Your task to perform on an android device: open chrome privacy settings Image 0: 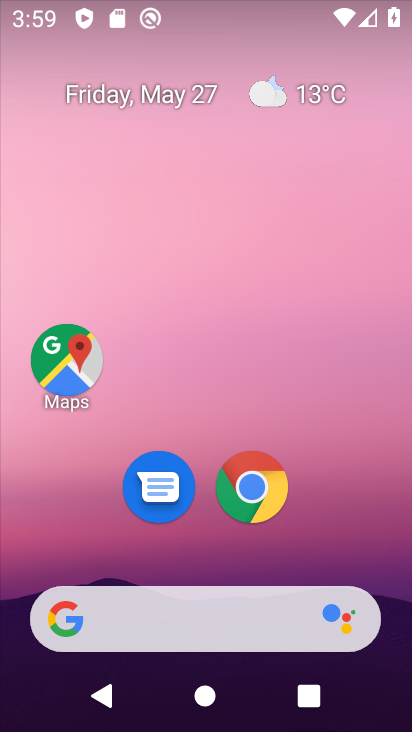
Step 0: click (259, 494)
Your task to perform on an android device: open chrome privacy settings Image 1: 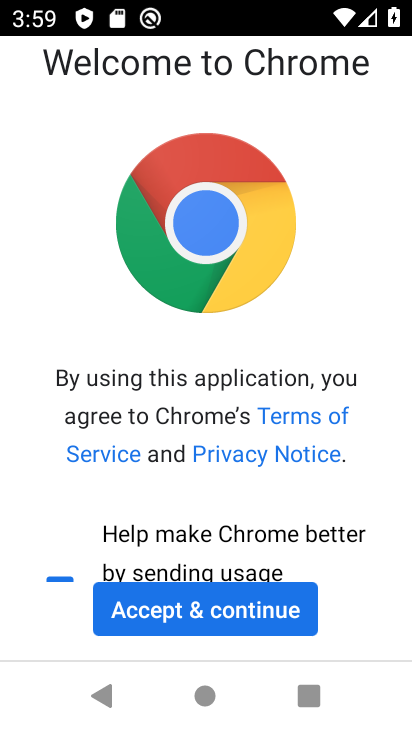
Step 1: click (251, 643)
Your task to perform on an android device: open chrome privacy settings Image 2: 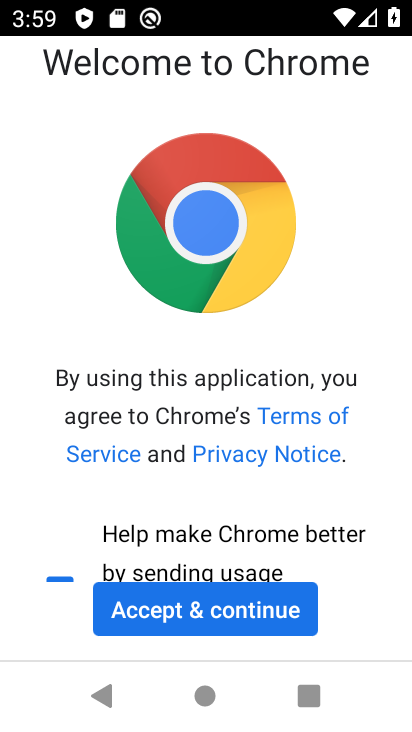
Step 2: click (230, 613)
Your task to perform on an android device: open chrome privacy settings Image 3: 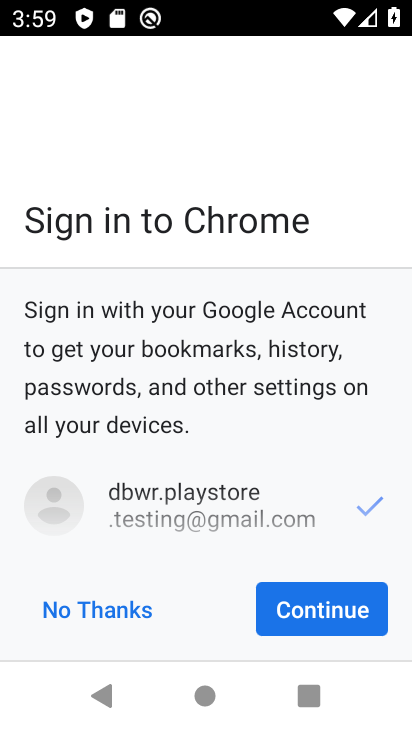
Step 3: click (302, 618)
Your task to perform on an android device: open chrome privacy settings Image 4: 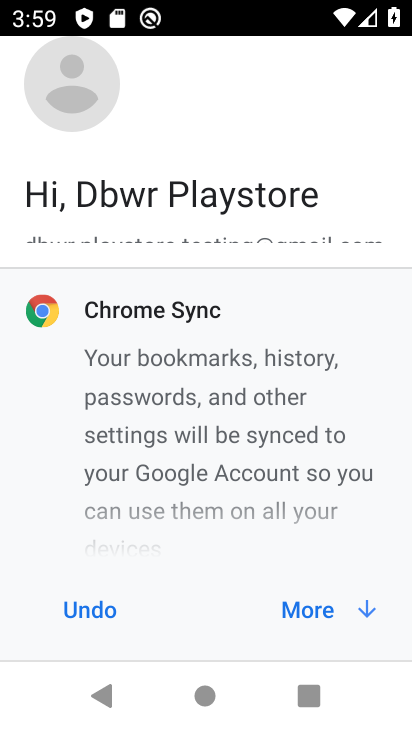
Step 4: click (302, 618)
Your task to perform on an android device: open chrome privacy settings Image 5: 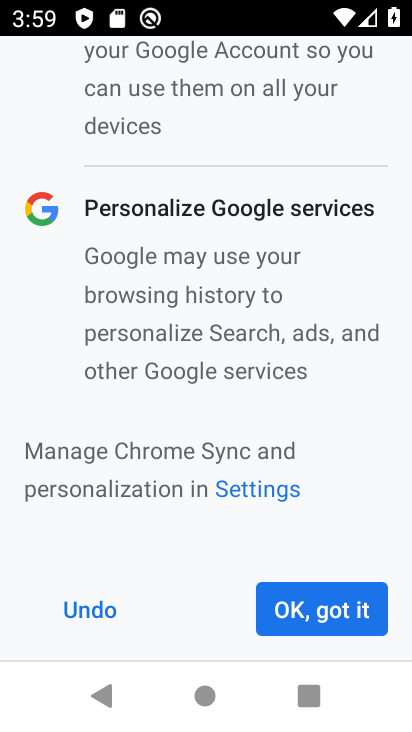
Step 5: click (302, 618)
Your task to perform on an android device: open chrome privacy settings Image 6: 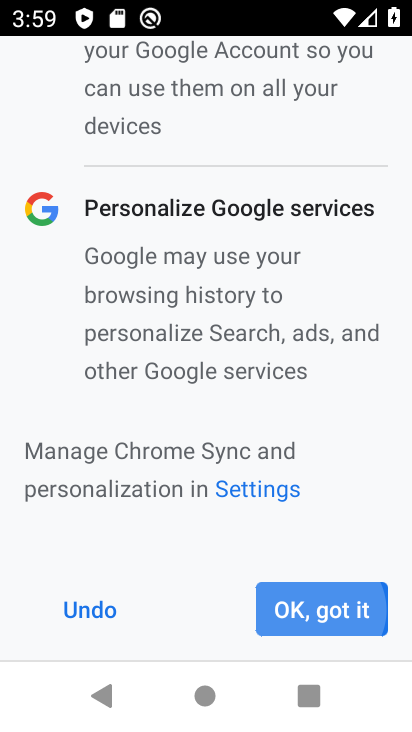
Step 6: click (302, 618)
Your task to perform on an android device: open chrome privacy settings Image 7: 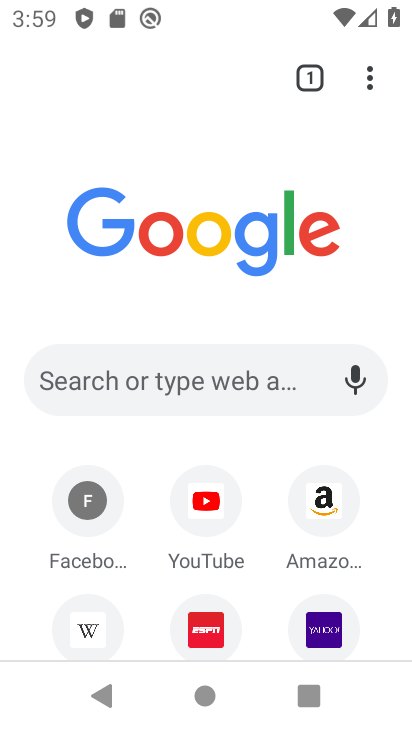
Step 7: click (369, 87)
Your task to perform on an android device: open chrome privacy settings Image 8: 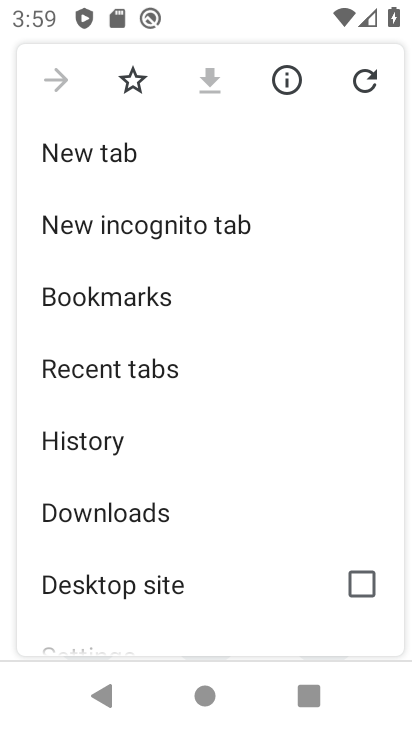
Step 8: drag from (230, 476) to (223, 156)
Your task to perform on an android device: open chrome privacy settings Image 9: 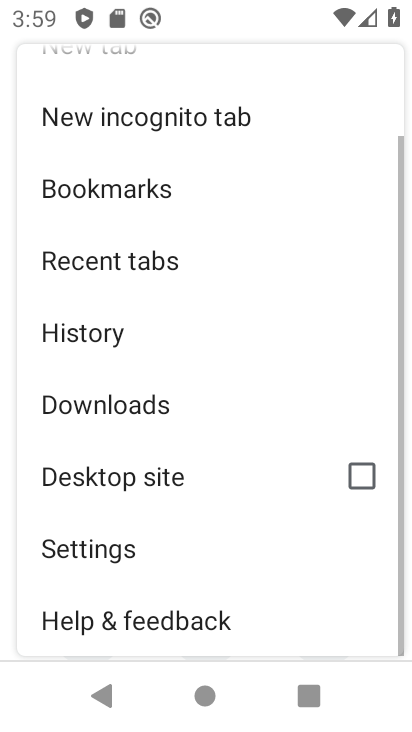
Step 9: click (79, 555)
Your task to perform on an android device: open chrome privacy settings Image 10: 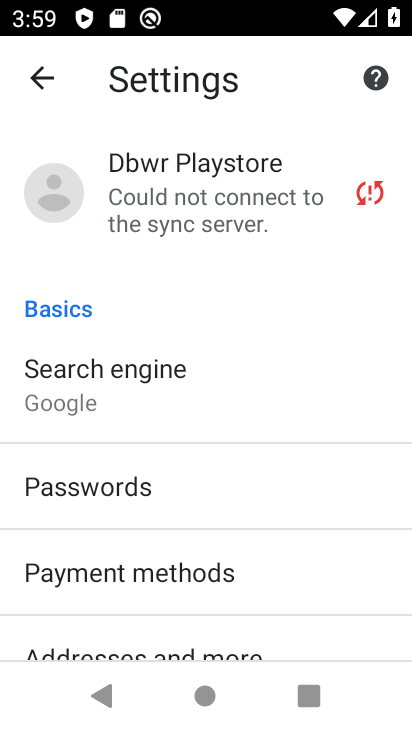
Step 10: drag from (318, 606) to (279, 200)
Your task to perform on an android device: open chrome privacy settings Image 11: 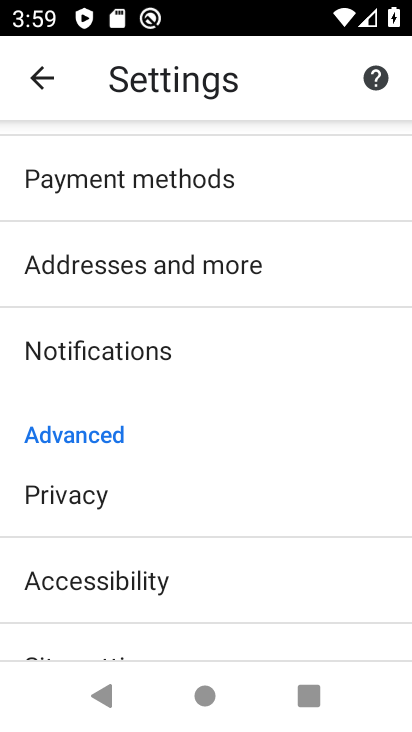
Step 11: click (85, 499)
Your task to perform on an android device: open chrome privacy settings Image 12: 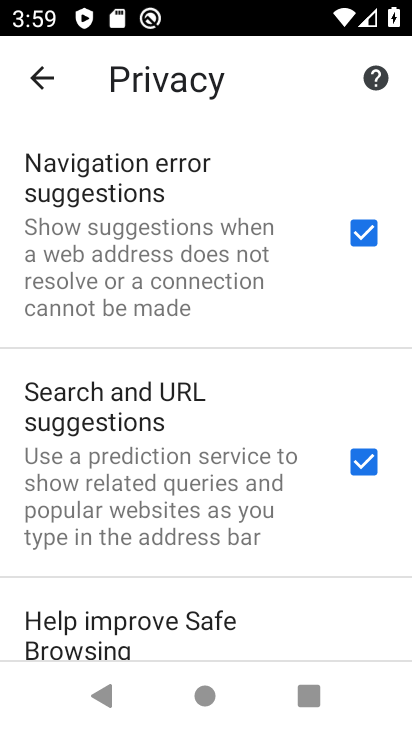
Step 12: task complete